Your task to perform on an android device: Go to battery settings Image 0: 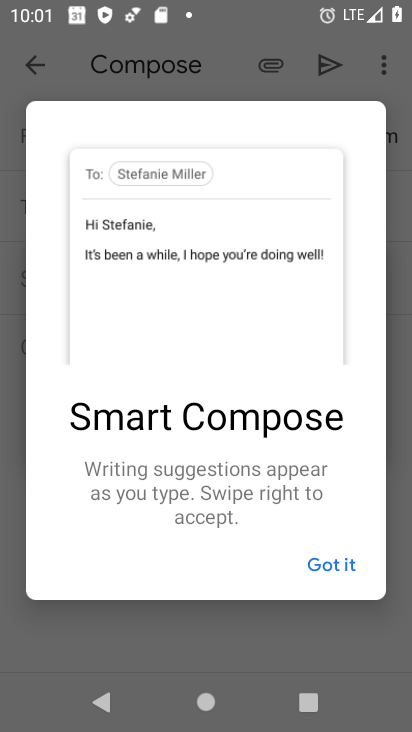
Step 0: press home button
Your task to perform on an android device: Go to battery settings Image 1: 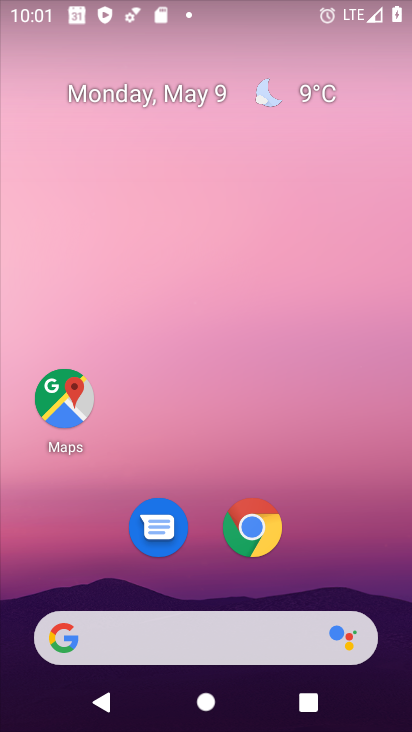
Step 1: drag from (393, 670) to (315, 284)
Your task to perform on an android device: Go to battery settings Image 2: 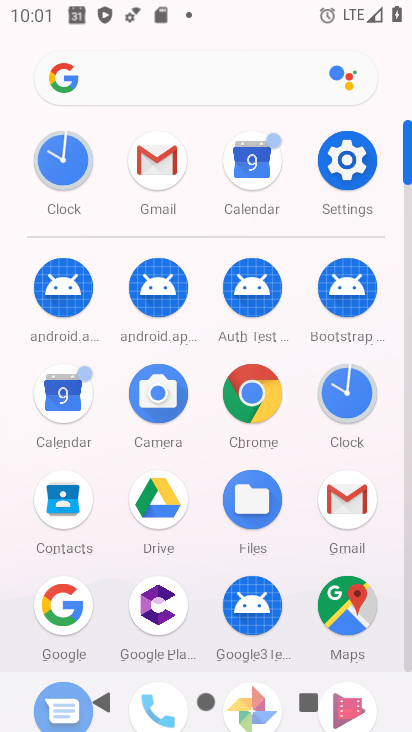
Step 2: click (406, 643)
Your task to perform on an android device: Go to battery settings Image 3: 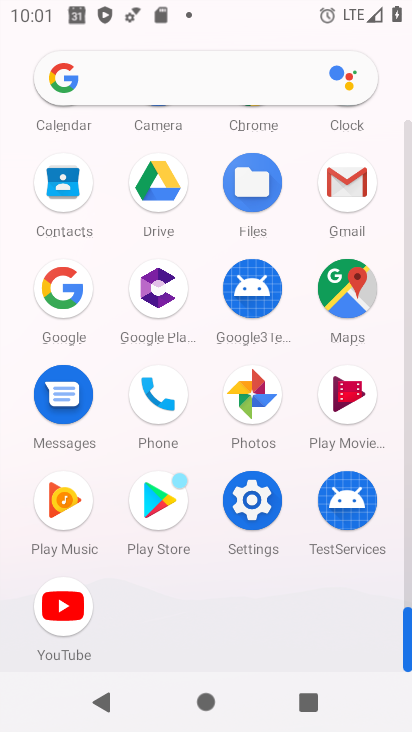
Step 3: click (251, 502)
Your task to perform on an android device: Go to battery settings Image 4: 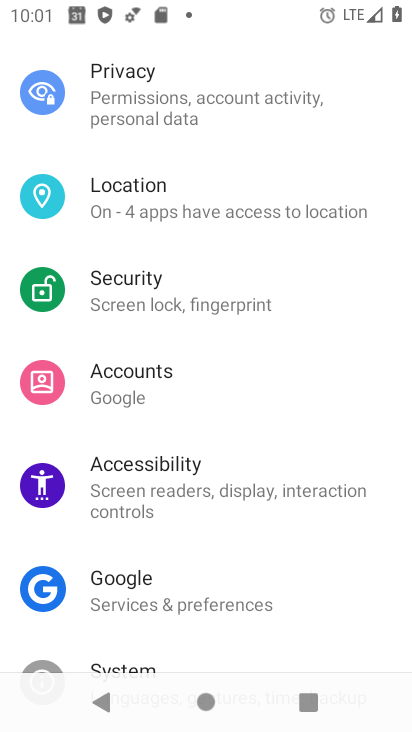
Step 4: drag from (281, 160) to (233, 534)
Your task to perform on an android device: Go to battery settings Image 5: 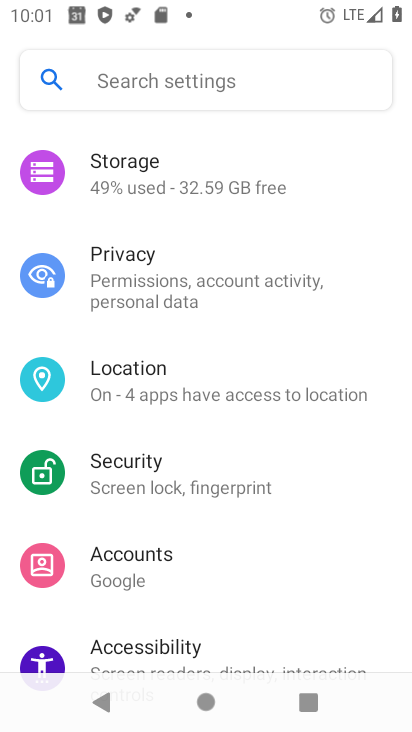
Step 5: drag from (239, 194) to (216, 506)
Your task to perform on an android device: Go to battery settings Image 6: 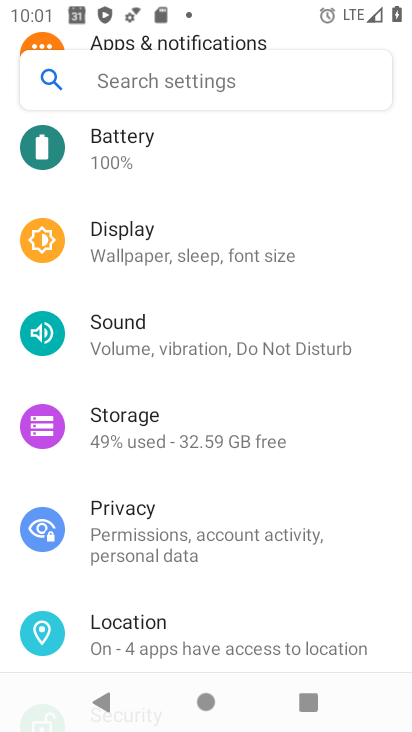
Step 6: click (108, 139)
Your task to perform on an android device: Go to battery settings Image 7: 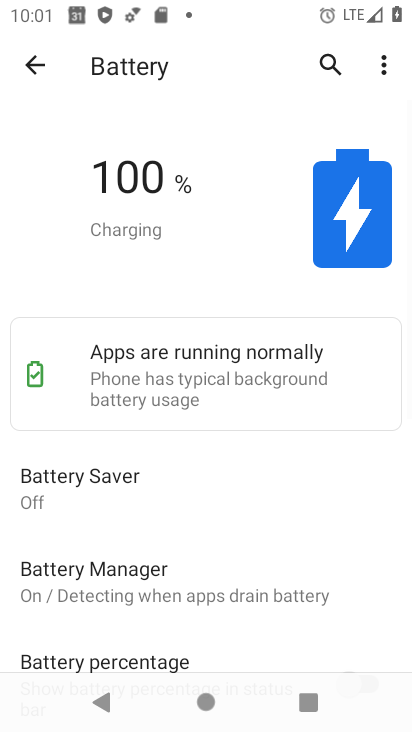
Step 7: task complete